Your task to perform on an android device: Open Reddit.com Image 0: 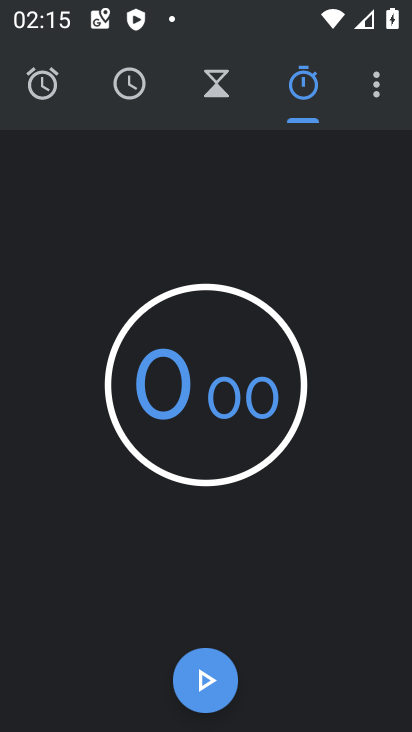
Step 0: press home button
Your task to perform on an android device: Open Reddit.com Image 1: 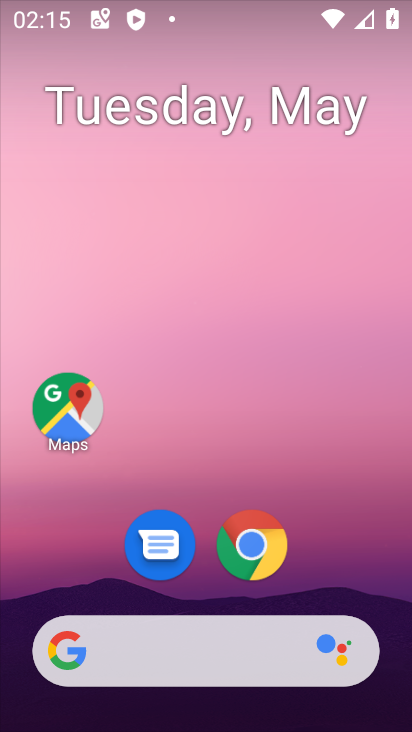
Step 1: click (250, 548)
Your task to perform on an android device: Open Reddit.com Image 2: 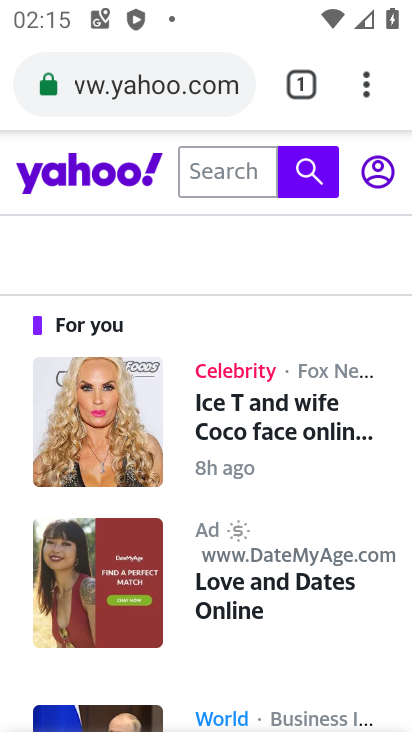
Step 2: click (177, 75)
Your task to perform on an android device: Open Reddit.com Image 3: 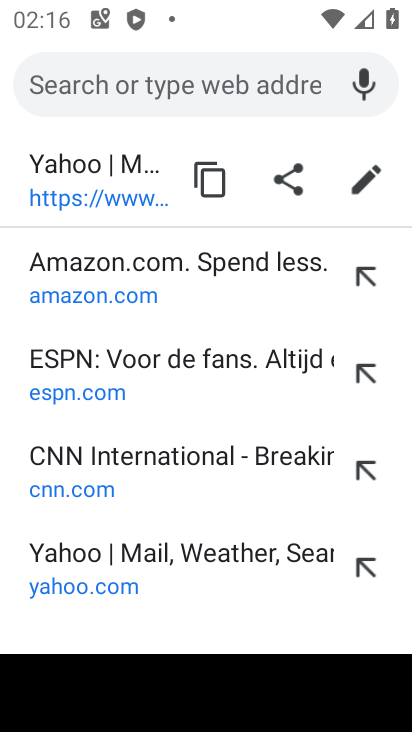
Step 3: type "reddit.com"
Your task to perform on an android device: Open Reddit.com Image 4: 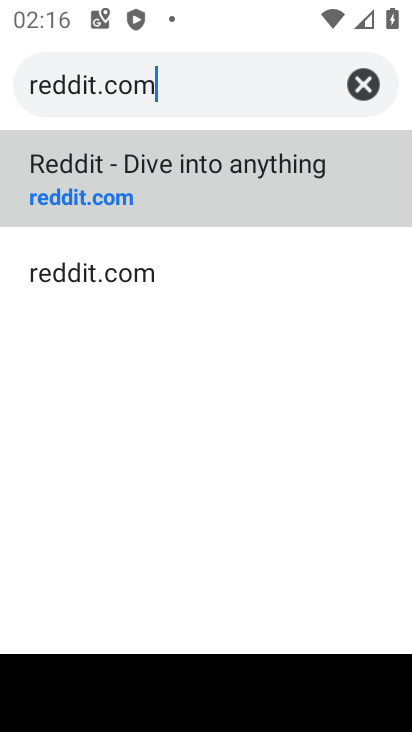
Step 4: click (95, 190)
Your task to perform on an android device: Open Reddit.com Image 5: 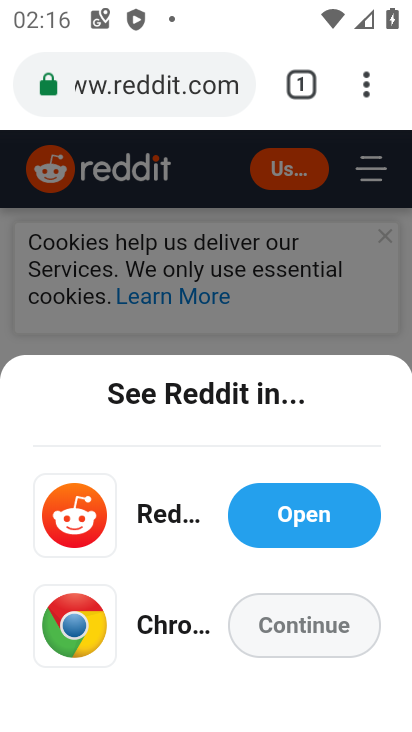
Step 5: task complete